Your task to perform on an android device: delete a single message in the gmail app Image 0: 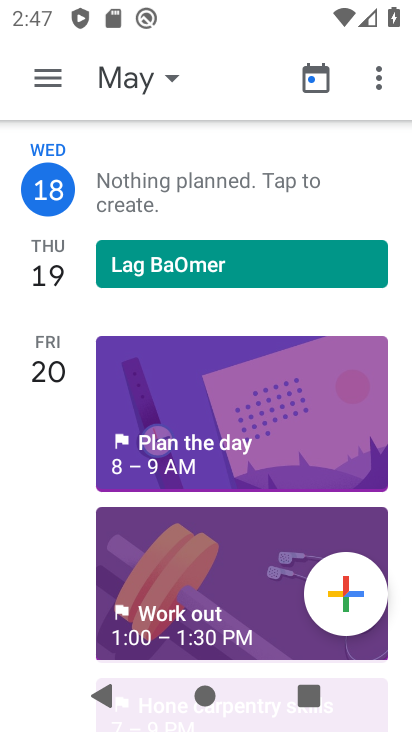
Step 0: press home button
Your task to perform on an android device: delete a single message in the gmail app Image 1: 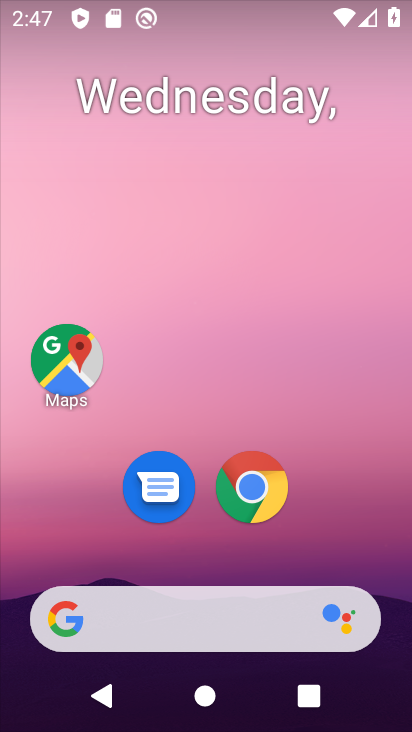
Step 1: drag from (379, 562) to (385, 175)
Your task to perform on an android device: delete a single message in the gmail app Image 2: 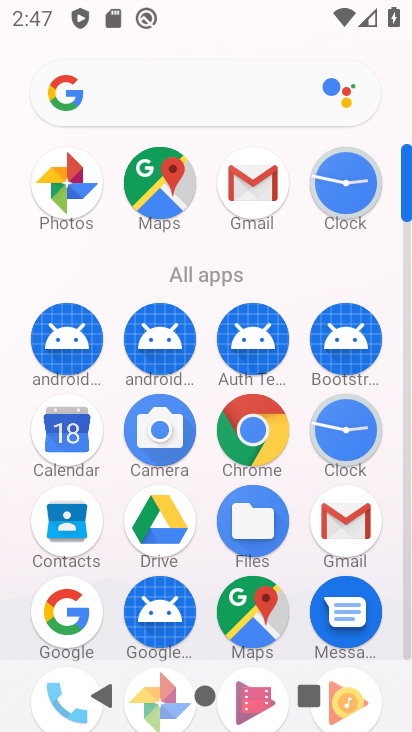
Step 2: click (360, 530)
Your task to perform on an android device: delete a single message in the gmail app Image 3: 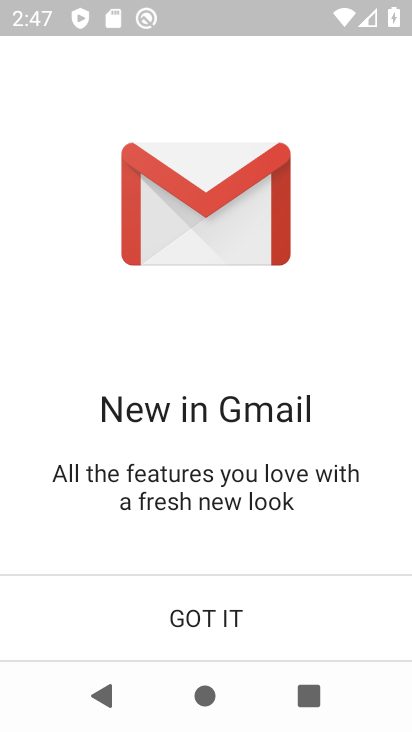
Step 3: click (251, 613)
Your task to perform on an android device: delete a single message in the gmail app Image 4: 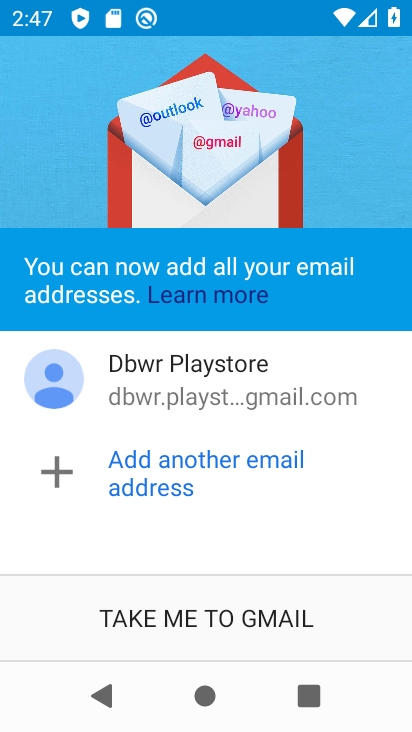
Step 4: click (251, 613)
Your task to perform on an android device: delete a single message in the gmail app Image 5: 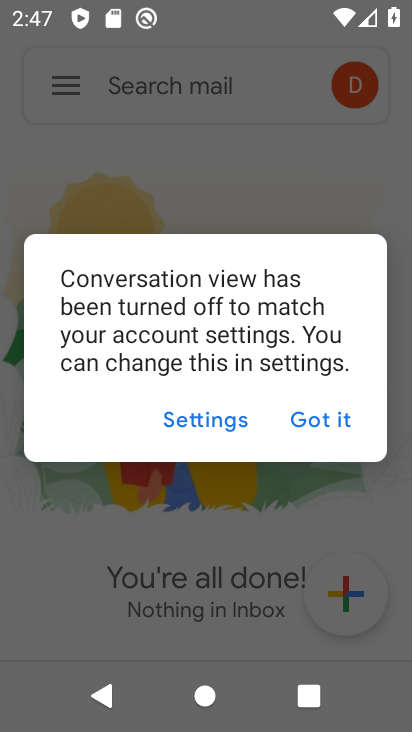
Step 5: click (305, 423)
Your task to perform on an android device: delete a single message in the gmail app Image 6: 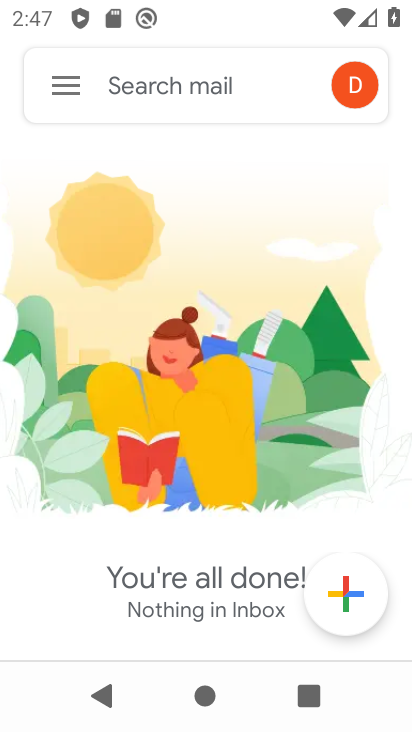
Step 6: click (68, 92)
Your task to perform on an android device: delete a single message in the gmail app Image 7: 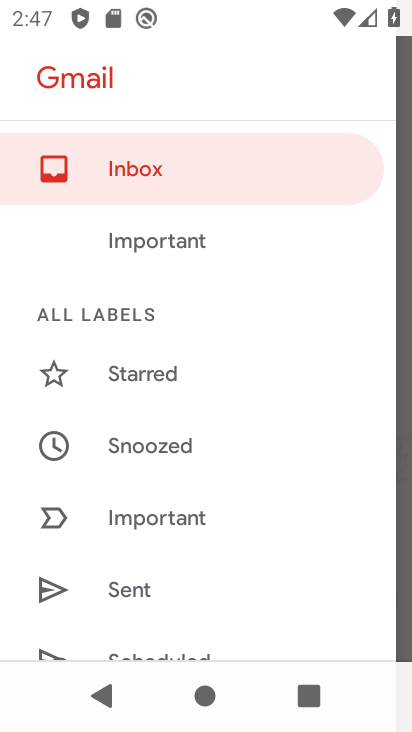
Step 7: drag from (272, 549) to (282, 437)
Your task to perform on an android device: delete a single message in the gmail app Image 8: 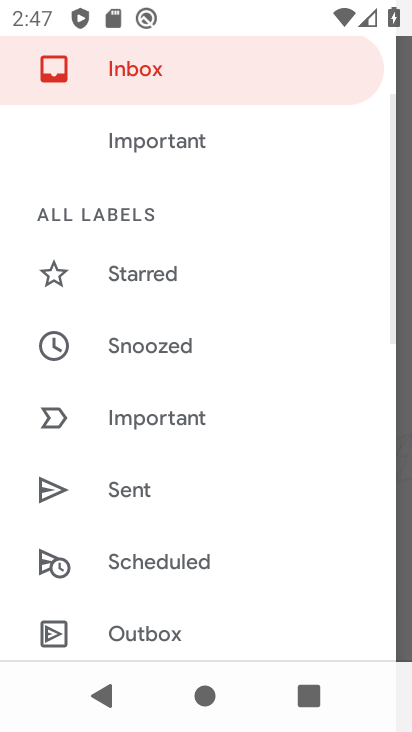
Step 8: drag from (294, 573) to (305, 443)
Your task to perform on an android device: delete a single message in the gmail app Image 9: 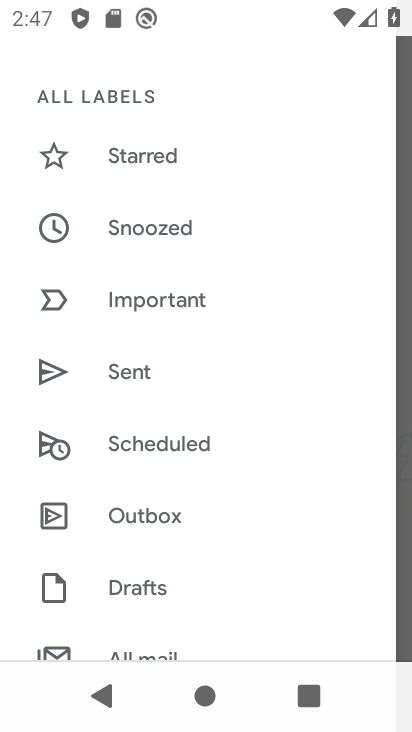
Step 9: drag from (284, 567) to (285, 433)
Your task to perform on an android device: delete a single message in the gmail app Image 10: 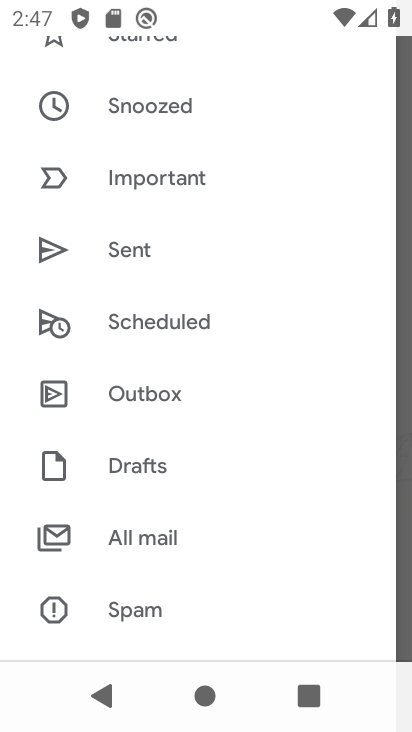
Step 10: drag from (288, 569) to (286, 435)
Your task to perform on an android device: delete a single message in the gmail app Image 11: 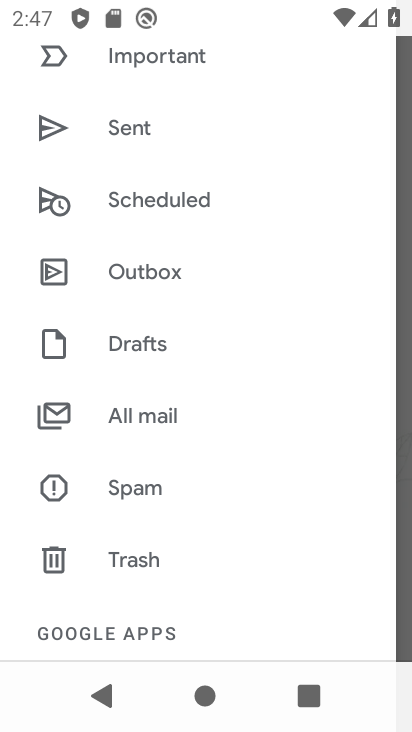
Step 11: drag from (285, 561) to (298, 454)
Your task to perform on an android device: delete a single message in the gmail app Image 12: 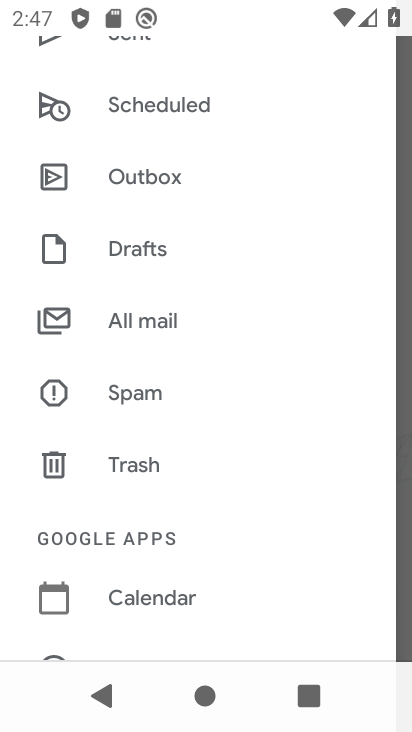
Step 12: drag from (296, 578) to (299, 486)
Your task to perform on an android device: delete a single message in the gmail app Image 13: 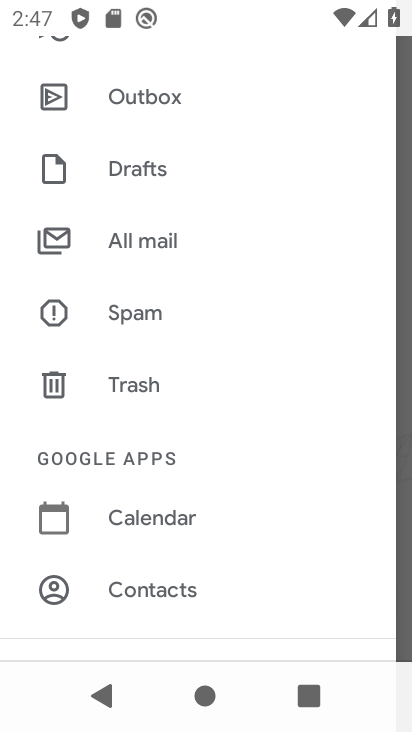
Step 13: drag from (309, 600) to (307, 471)
Your task to perform on an android device: delete a single message in the gmail app Image 14: 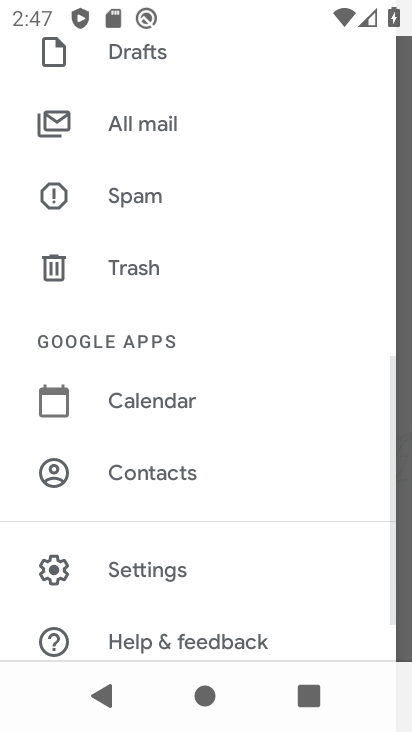
Step 14: drag from (306, 607) to (305, 467)
Your task to perform on an android device: delete a single message in the gmail app Image 15: 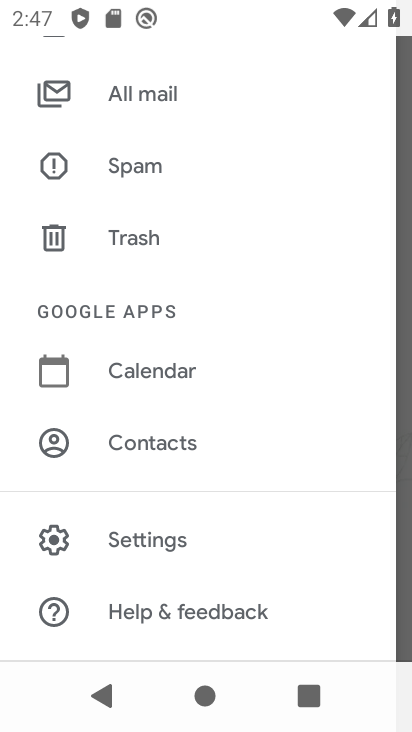
Step 15: drag from (311, 369) to (311, 478)
Your task to perform on an android device: delete a single message in the gmail app Image 16: 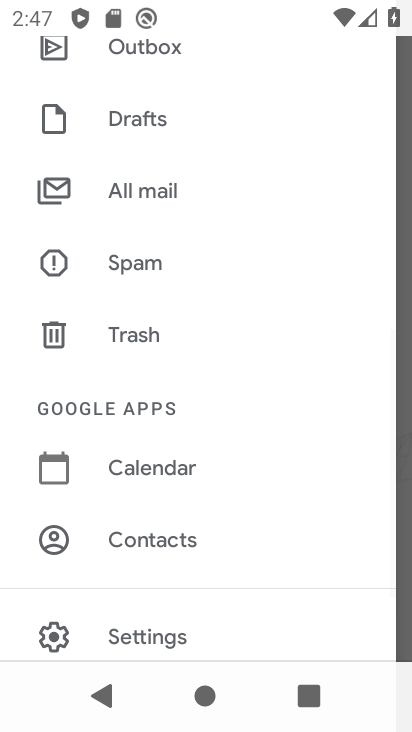
Step 16: drag from (315, 344) to (312, 454)
Your task to perform on an android device: delete a single message in the gmail app Image 17: 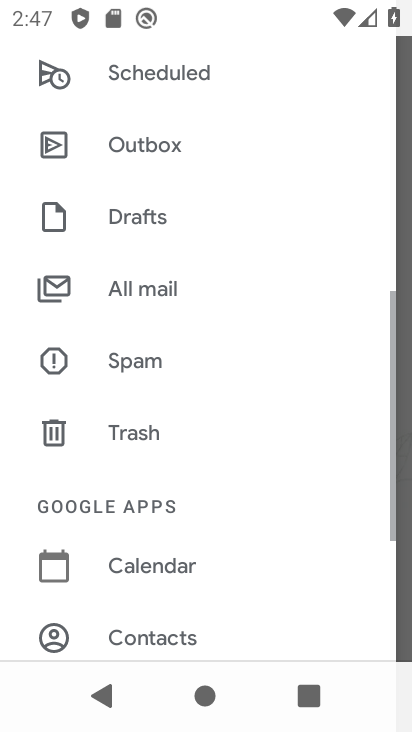
Step 17: drag from (302, 295) to (302, 440)
Your task to perform on an android device: delete a single message in the gmail app Image 18: 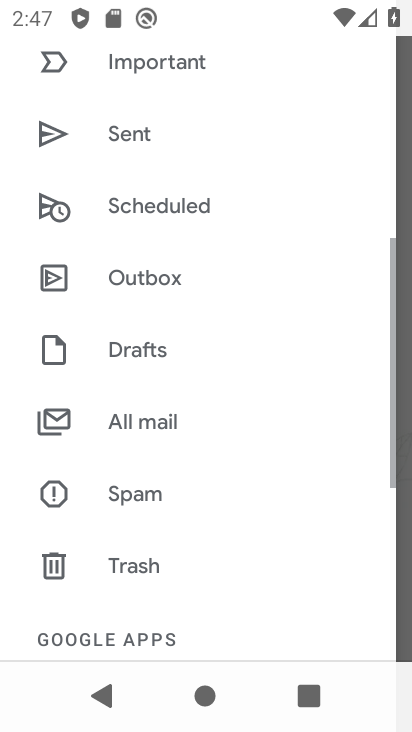
Step 18: drag from (315, 245) to (323, 409)
Your task to perform on an android device: delete a single message in the gmail app Image 19: 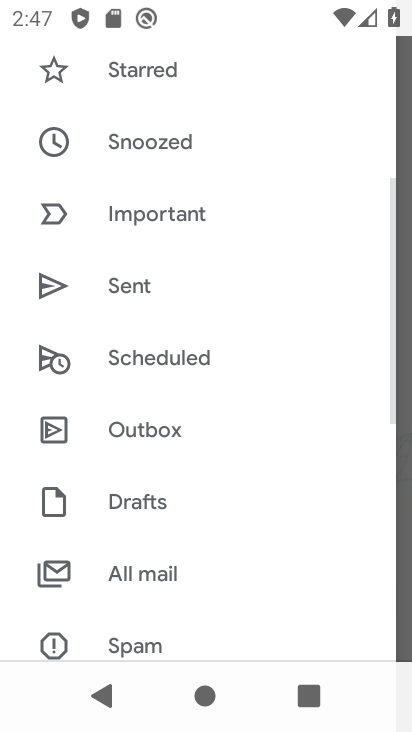
Step 19: drag from (301, 254) to (310, 402)
Your task to perform on an android device: delete a single message in the gmail app Image 20: 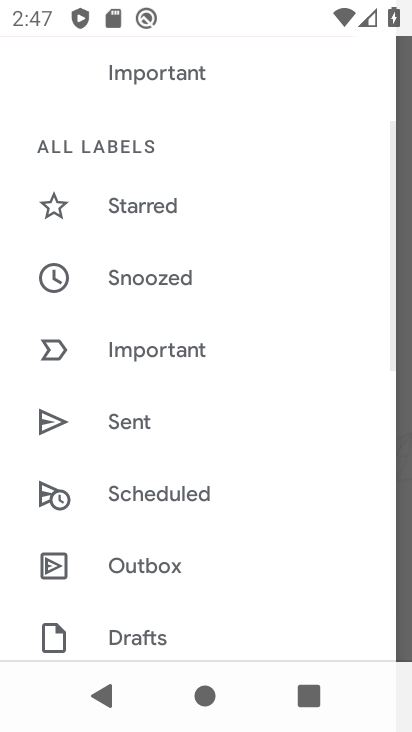
Step 20: drag from (286, 210) to (277, 410)
Your task to perform on an android device: delete a single message in the gmail app Image 21: 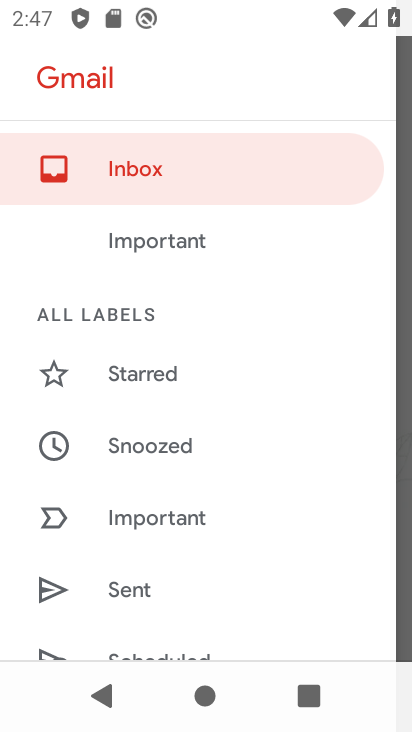
Step 21: click (199, 173)
Your task to perform on an android device: delete a single message in the gmail app Image 22: 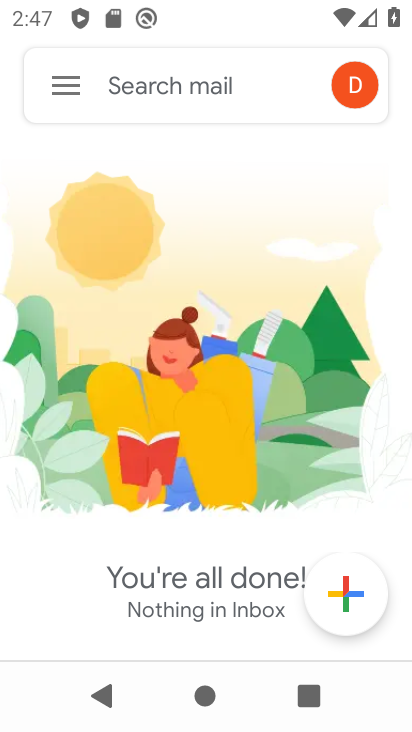
Step 22: task complete